Your task to perform on an android device: delete the emails in spam in the gmail app Image 0: 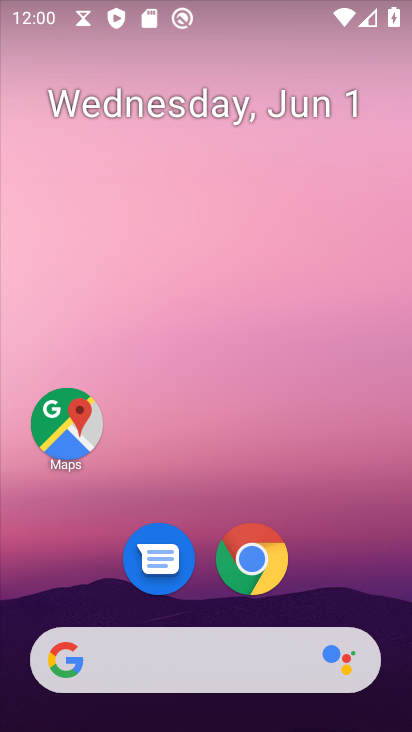
Step 0: drag from (50, 591) to (182, 151)
Your task to perform on an android device: delete the emails in spam in the gmail app Image 1: 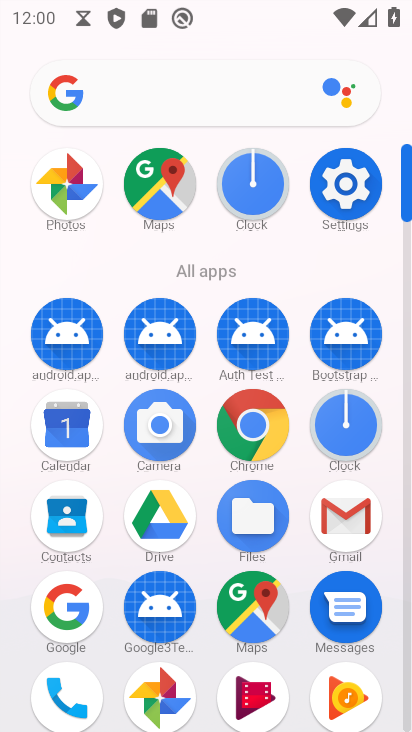
Step 1: click (371, 492)
Your task to perform on an android device: delete the emails in spam in the gmail app Image 2: 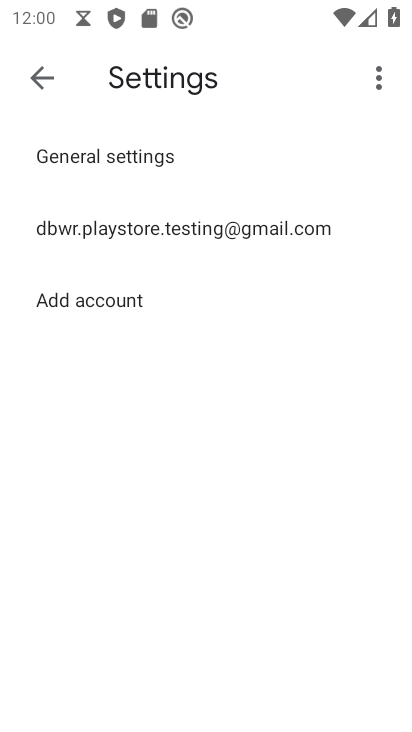
Step 2: press back button
Your task to perform on an android device: delete the emails in spam in the gmail app Image 3: 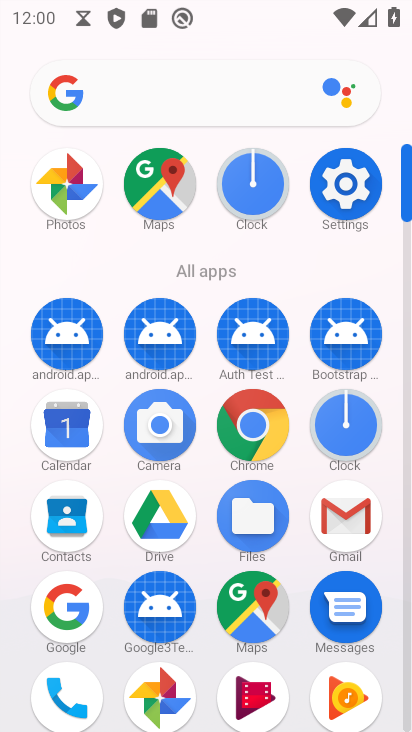
Step 3: click (354, 507)
Your task to perform on an android device: delete the emails in spam in the gmail app Image 4: 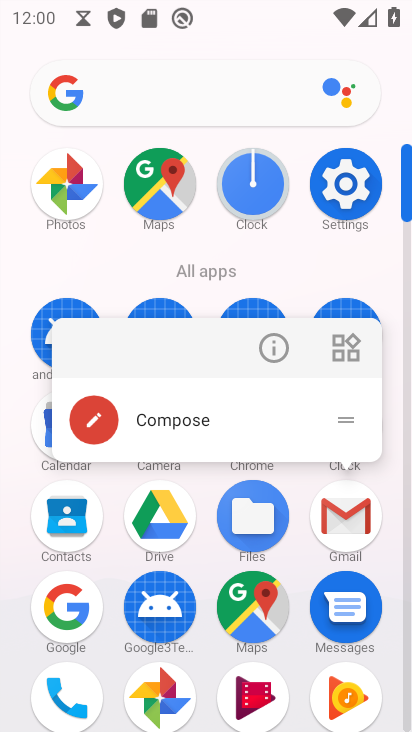
Step 4: click (347, 509)
Your task to perform on an android device: delete the emails in spam in the gmail app Image 5: 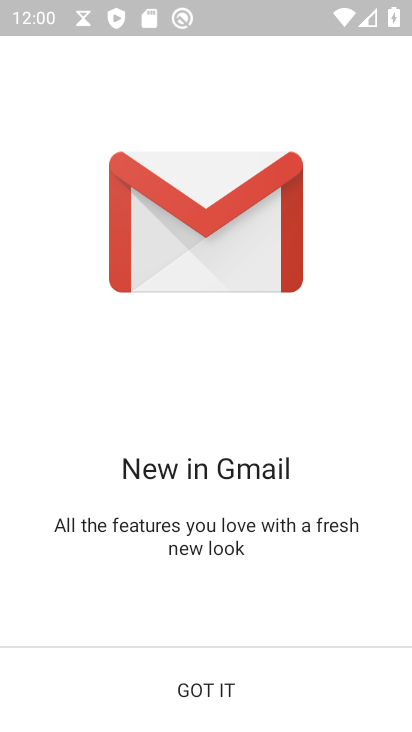
Step 5: click (205, 690)
Your task to perform on an android device: delete the emails in spam in the gmail app Image 6: 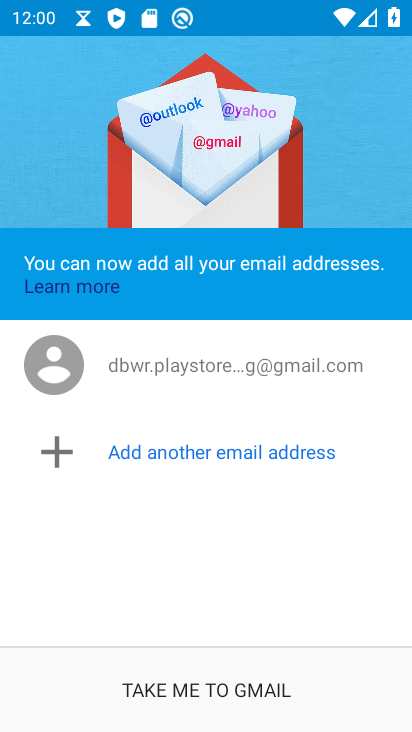
Step 6: click (233, 695)
Your task to perform on an android device: delete the emails in spam in the gmail app Image 7: 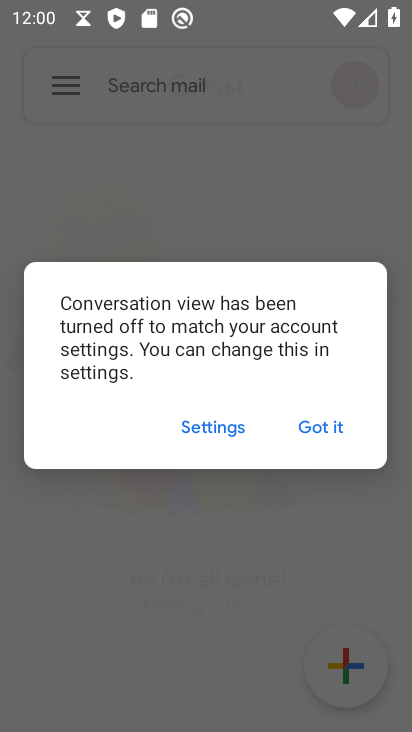
Step 7: click (351, 419)
Your task to perform on an android device: delete the emails in spam in the gmail app Image 8: 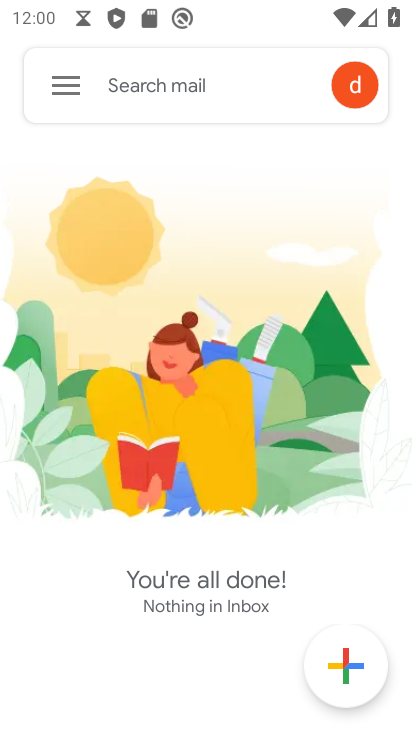
Step 8: click (76, 101)
Your task to perform on an android device: delete the emails in spam in the gmail app Image 9: 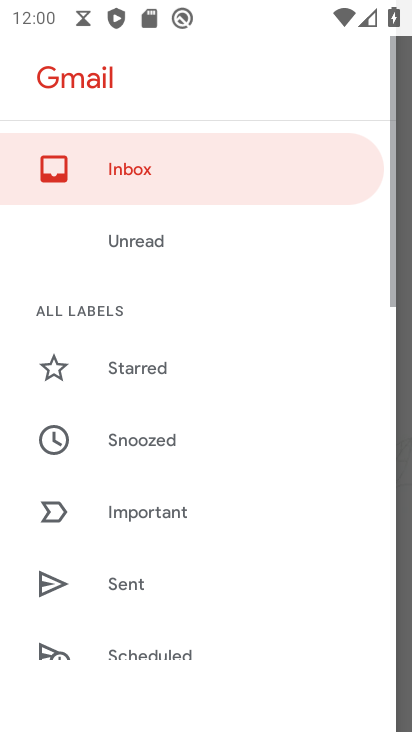
Step 9: drag from (144, 636) to (304, 132)
Your task to perform on an android device: delete the emails in spam in the gmail app Image 10: 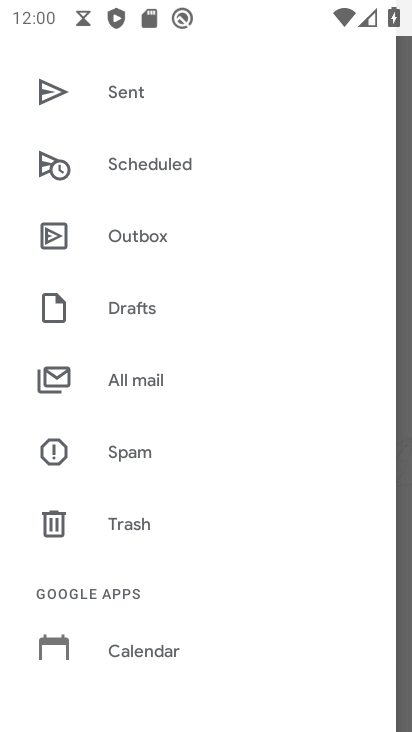
Step 10: click (197, 455)
Your task to perform on an android device: delete the emails in spam in the gmail app Image 11: 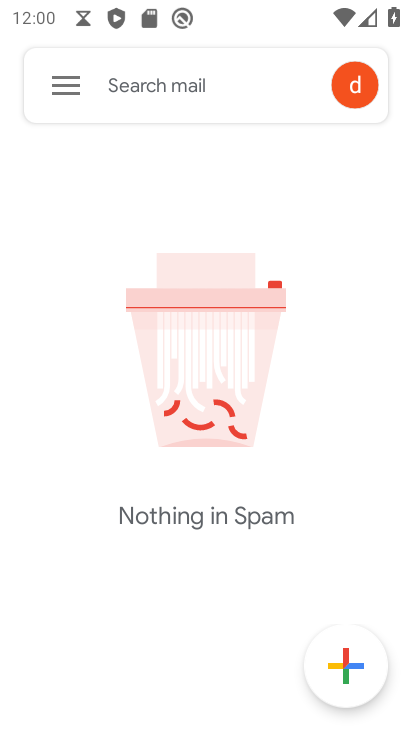
Step 11: task complete